Your task to perform on an android device: Go to display settings Image 0: 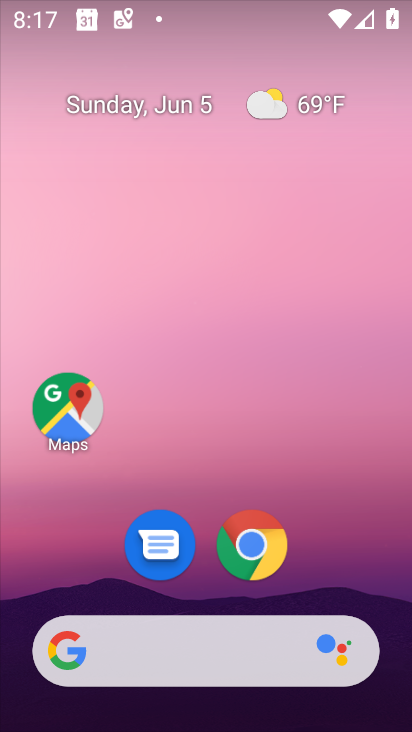
Step 0: drag from (373, 587) to (367, 209)
Your task to perform on an android device: Go to display settings Image 1: 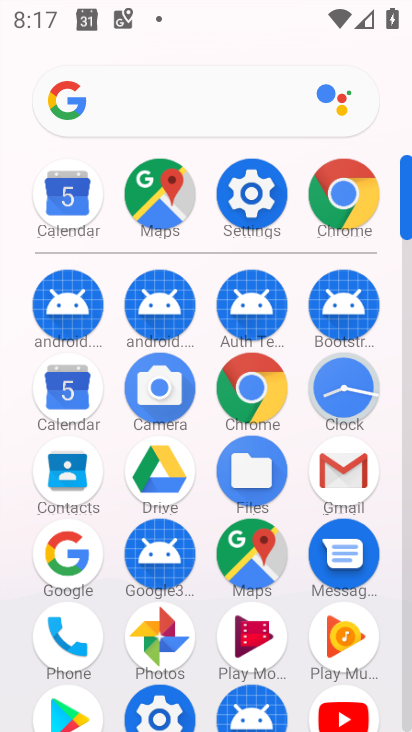
Step 1: click (264, 217)
Your task to perform on an android device: Go to display settings Image 2: 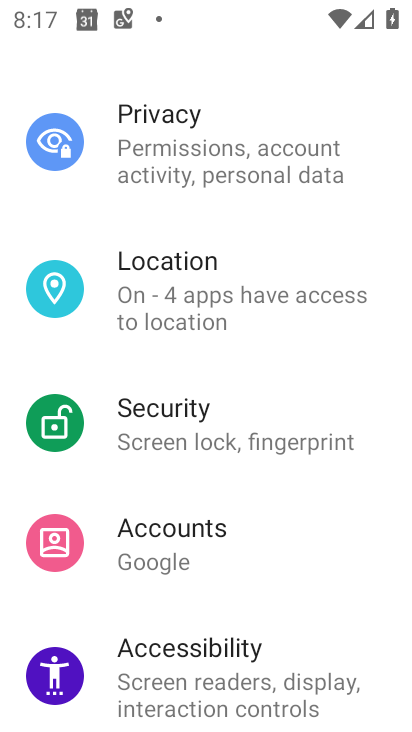
Step 2: drag from (375, 280) to (378, 383)
Your task to perform on an android device: Go to display settings Image 3: 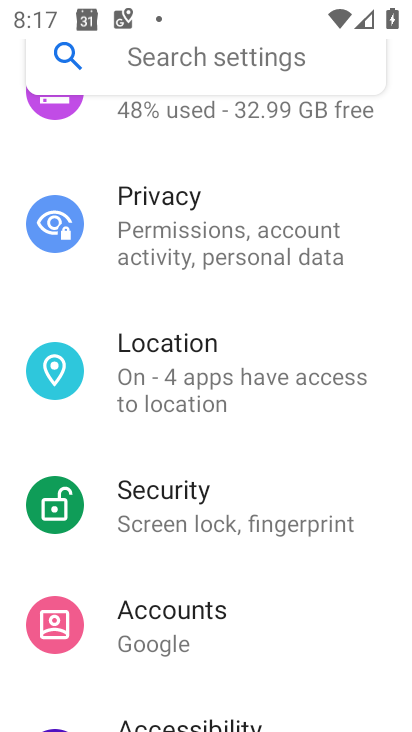
Step 3: drag from (377, 266) to (374, 359)
Your task to perform on an android device: Go to display settings Image 4: 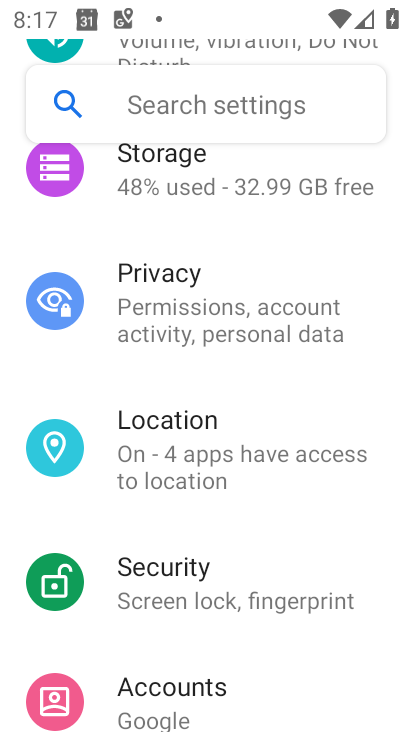
Step 4: drag from (377, 268) to (387, 366)
Your task to perform on an android device: Go to display settings Image 5: 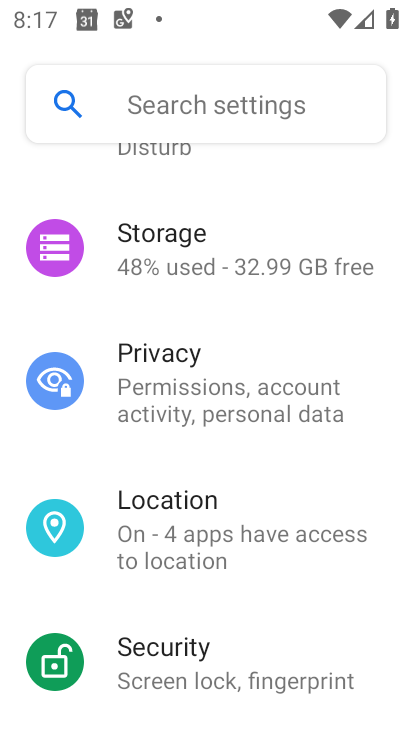
Step 5: drag from (381, 248) to (359, 356)
Your task to perform on an android device: Go to display settings Image 6: 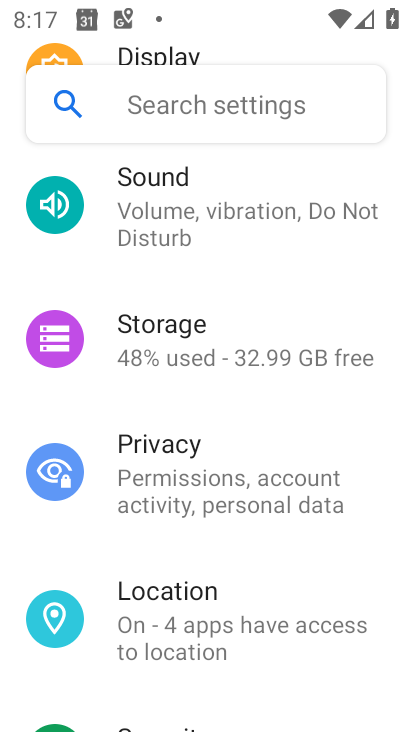
Step 6: drag from (370, 255) to (367, 358)
Your task to perform on an android device: Go to display settings Image 7: 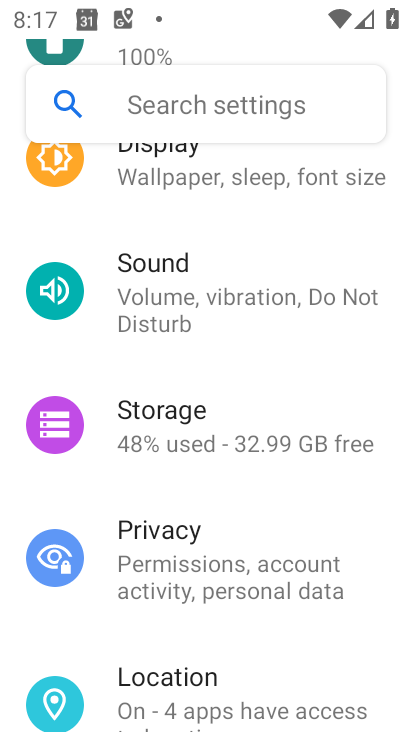
Step 7: drag from (379, 267) to (387, 384)
Your task to perform on an android device: Go to display settings Image 8: 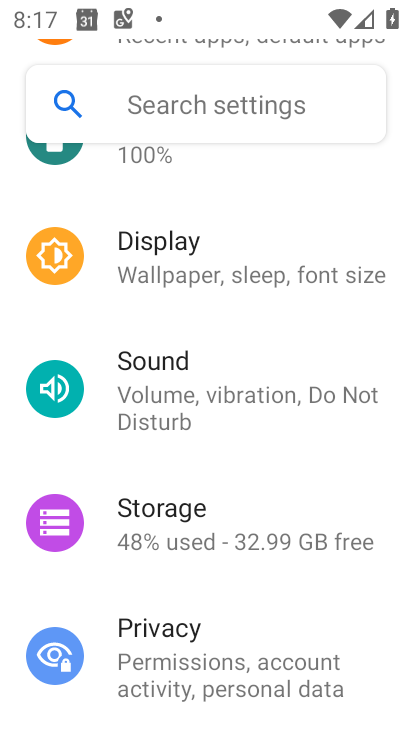
Step 8: drag from (378, 233) to (381, 407)
Your task to perform on an android device: Go to display settings Image 9: 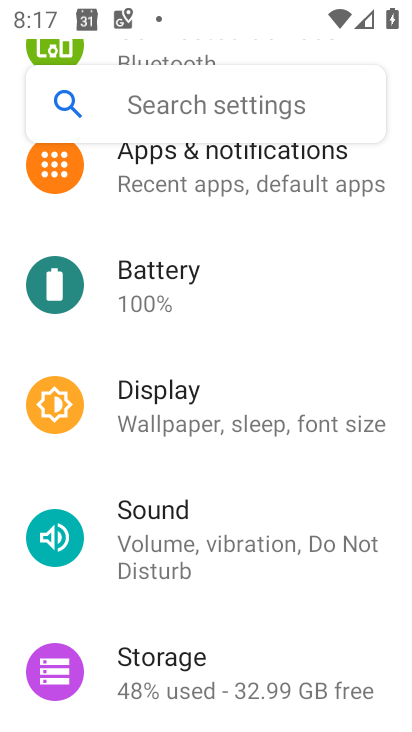
Step 9: click (337, 414)
Your task to perform on an android device: Go to display settings Image 10: 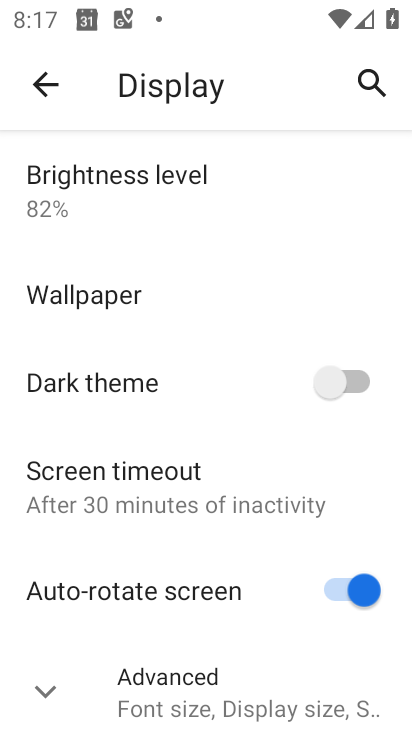
Step 10: click (163, 688)
Your task to perform on an android device: Go to display settings Image 11: 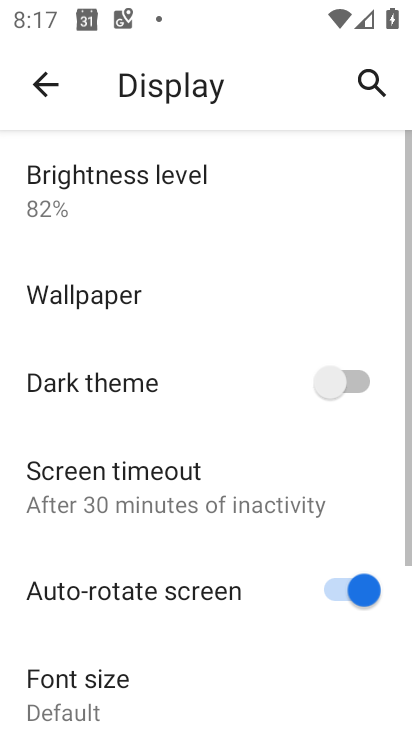
Step 11: task complete